Your task to perform on an android device: add a contact Image 0: 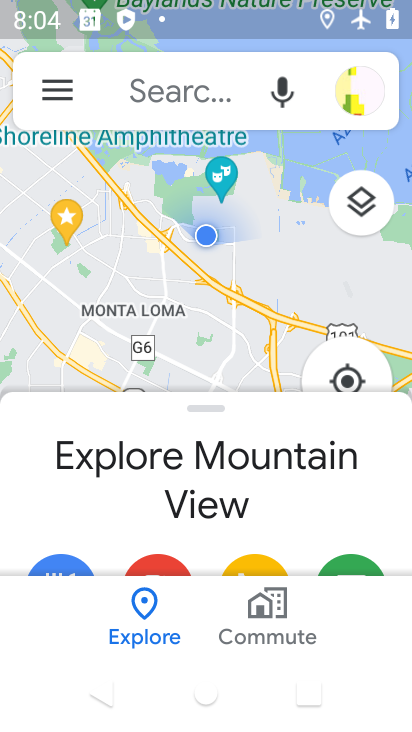
Step 0: press home button
Your task to perform on an android device: add a contact Image 1: 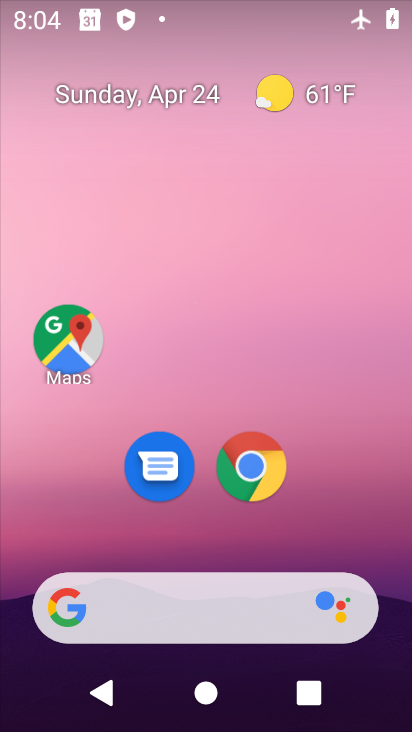
Step 1: drag from (224, 547) to (187, 18)
Your task to perform on an android device: add a contact Image 2: 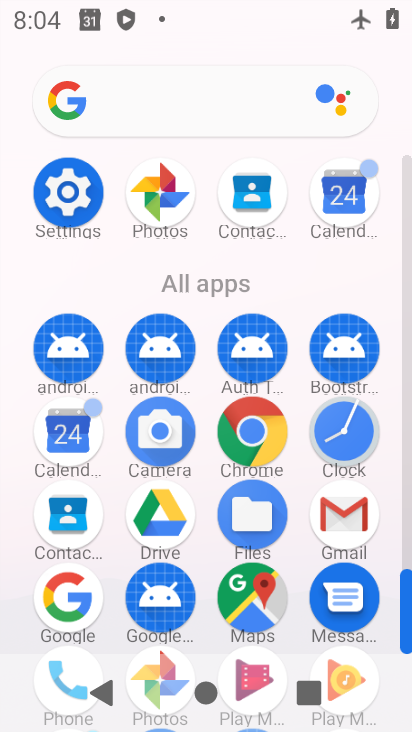
Step 2: click (70, 517)
Your task to perform on an android device: add a contact Image 3: 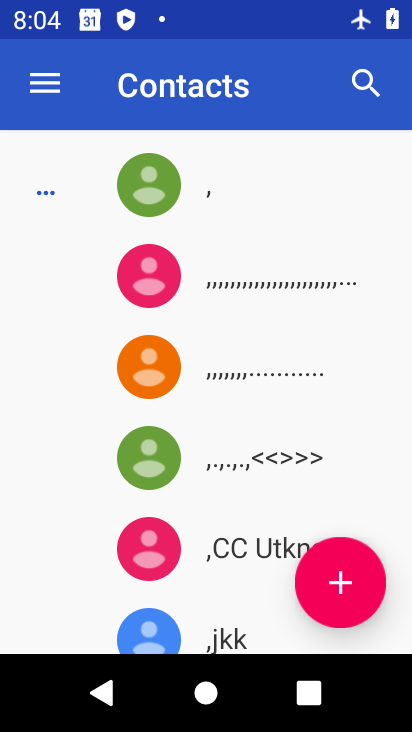
Step 3: click (341, 579)
Your task to perform on an android device: add a contact Image 4: 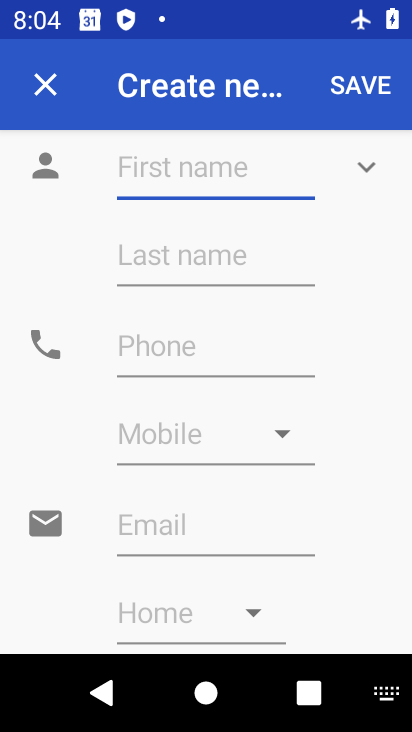
Step 4: type "fings"
Your task to perform on an android device: add a contact Image 5: 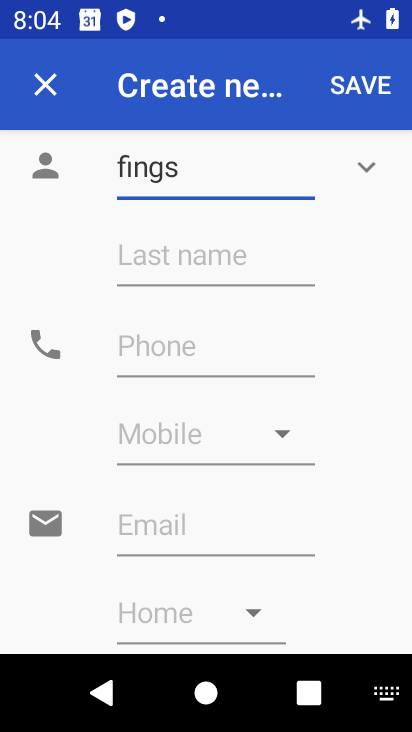
Step 5: click (370, 91)
Your task to perform on an android device: add a contact Image 6: 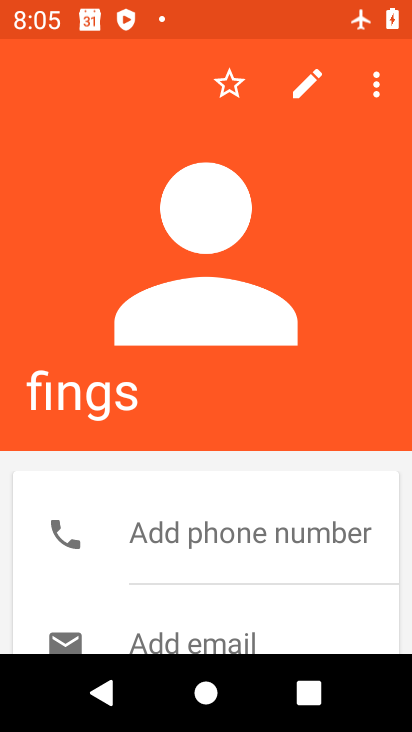
Step 6: task complete